Your task to perform on an android device: Open Yahoo.com Image 0: 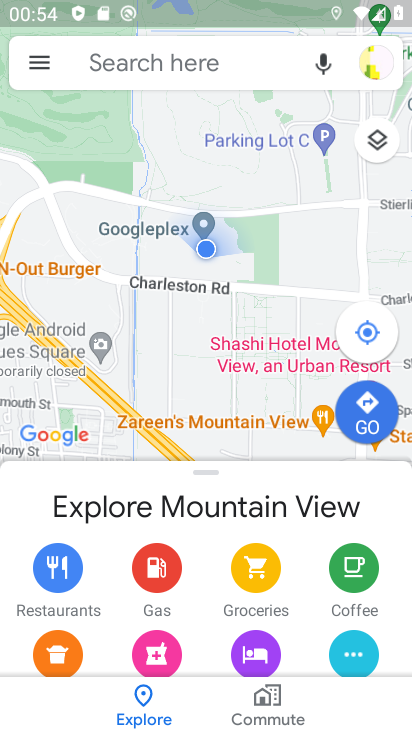
Step 0: press home button
Your task to perform on an android device: Open Yahoo.com Image 1: 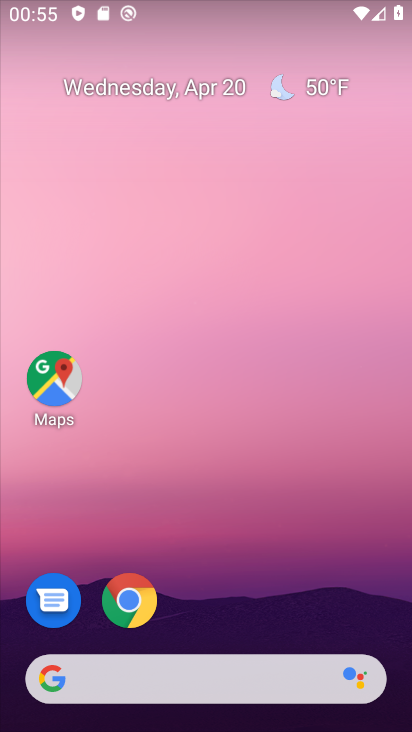
Step 1: drag from (213, 612) to (242, 234)
Your task to perform on an android device: Open Yahoo.com Image 2: 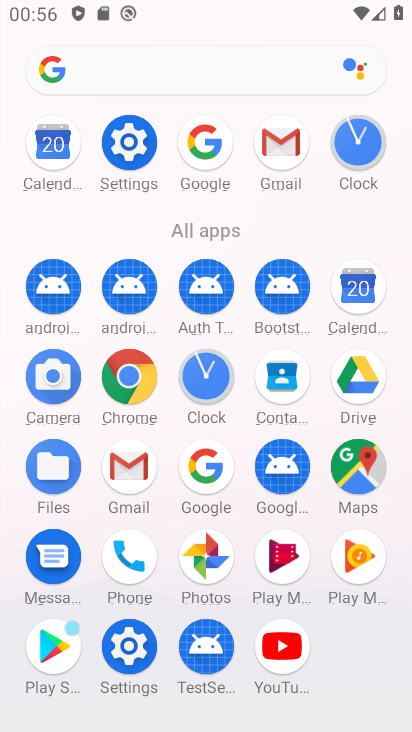
Step 2: click (118, 360)
Your task to perform on an android device: Open Yahoo.com Image 3: 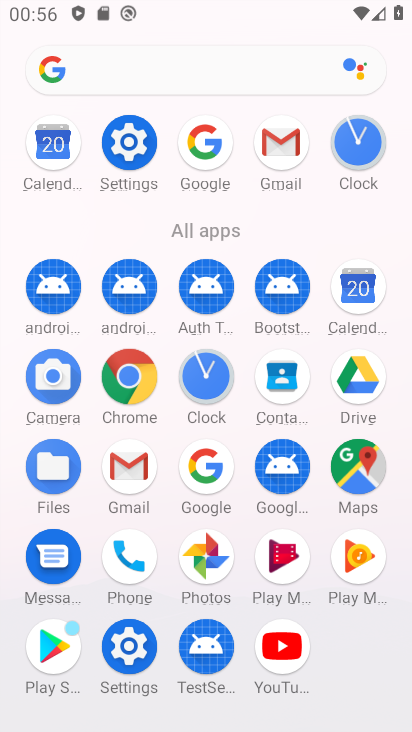
Step 3: click (120, 371)
Your task to perform on an android device: Open Yahoo.com Image 4: 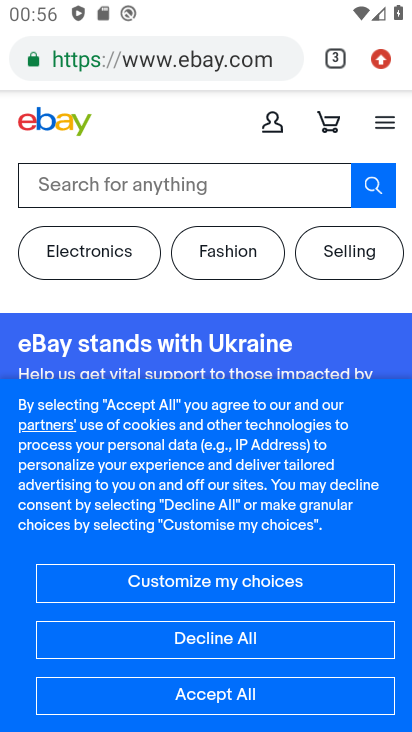
Step 4: click (338, 56)
Your task to perform on an android device: Open Yahoo.com Image 5: 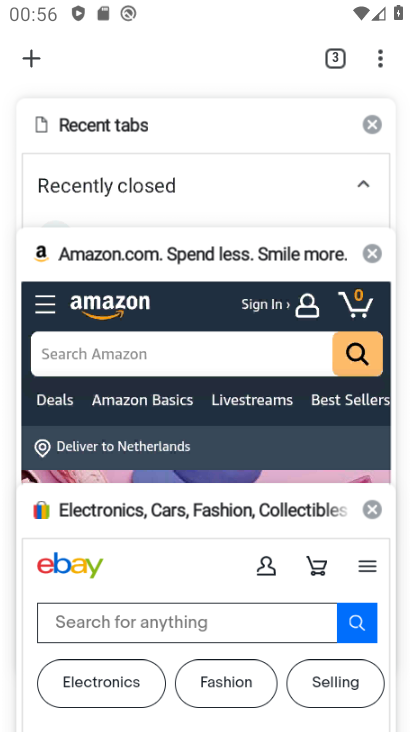
Step 5: click (28, 62)
Your task to perform on an android device: Open Yahoo.com Image 6: 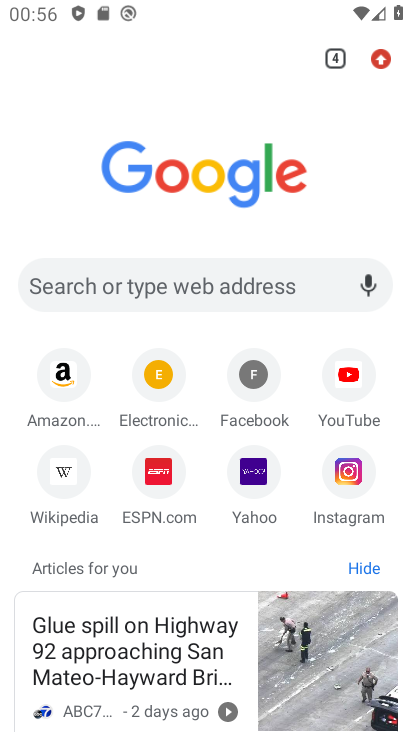
Step 6: click (257, 467)
Your task to perform on an android device: Open Yahoo.com Image 7: 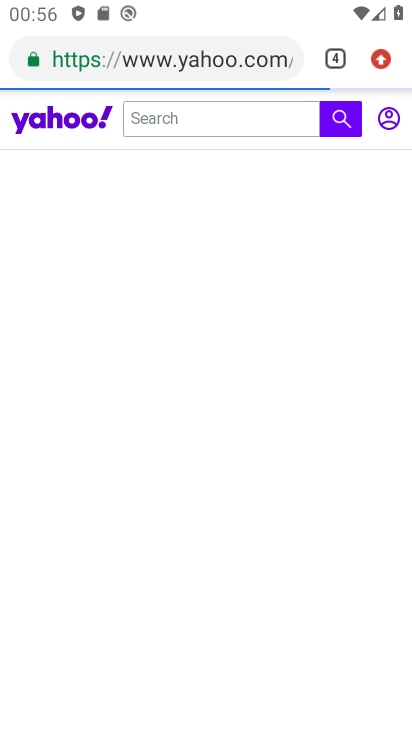
Step 7: task complete